Your task to perform on an android device: open a bookmark in the chrome app Image 0: 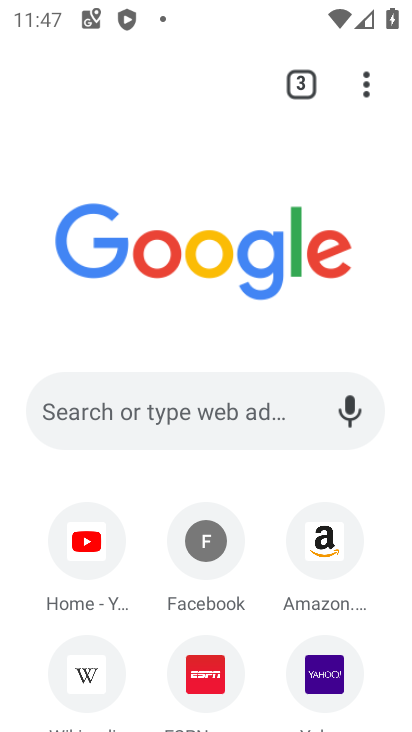
Step 0: press back button
Your task to perform on an android device: open a bookmark in the chrome app Image 1: 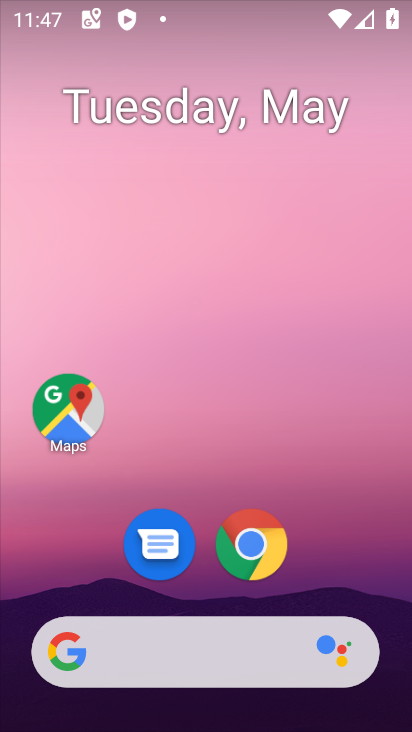
Step 1: drag from (276, 702) to (127, 55)
Your task to perform on an android device: open a bookmark in the chrome app Image 2: 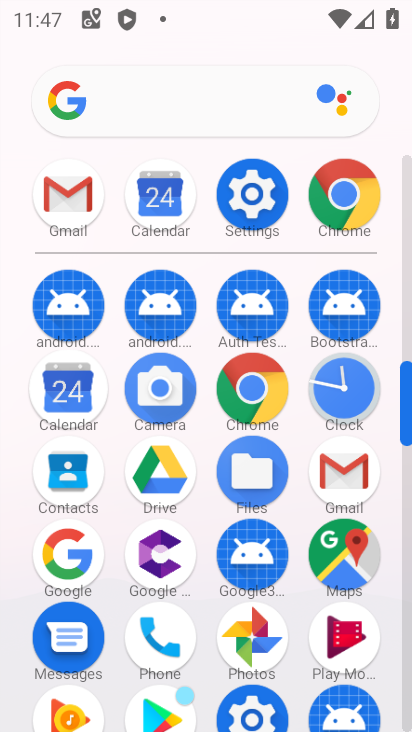
Step 2: click (341, 195)
Your task to perform on an android device: open a bookmark in the chrome app Image 3: 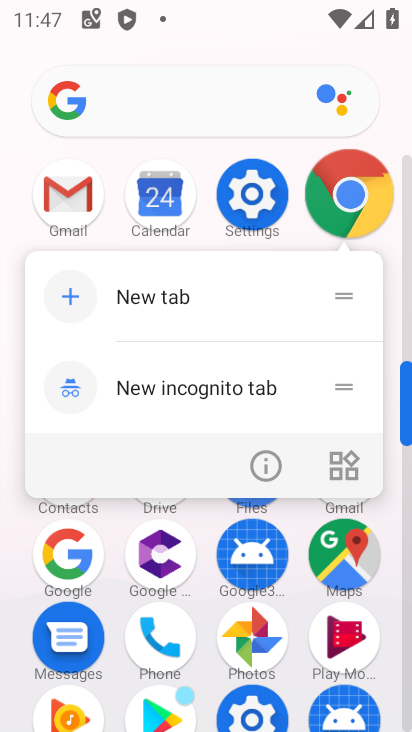
Step 3: click (347, 194)
Your task to perform on an android device: open a bookmark in the chrome app Image 4: 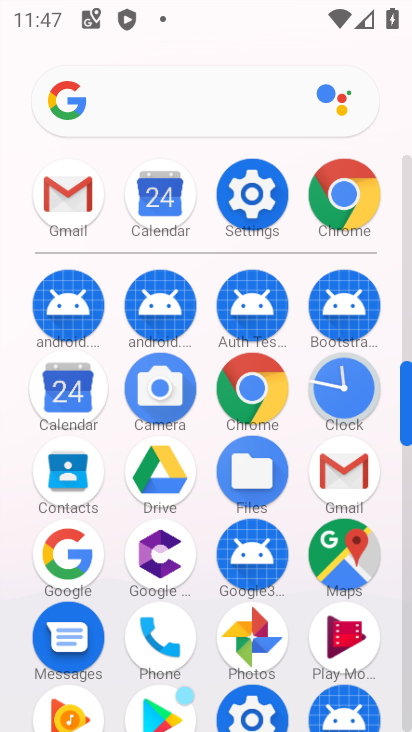
Step 4: click (345, 197)
Your task to perform on an android device: open a bookmark in the chrome app Image 5: 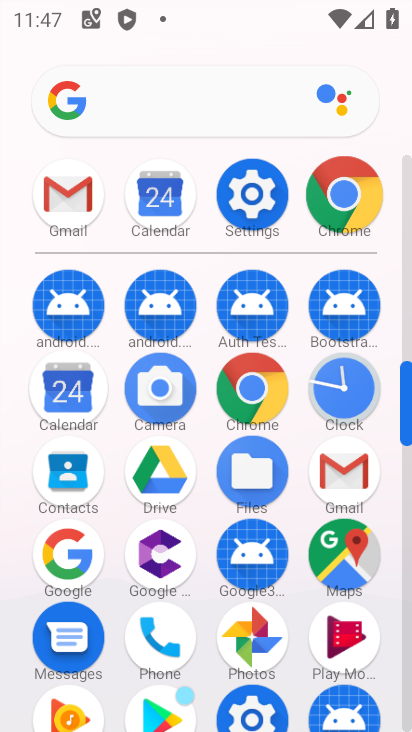
Step 5: click (344, 198)
Your task to perform on an android device: open a bookmark in the chrome app Image 6: 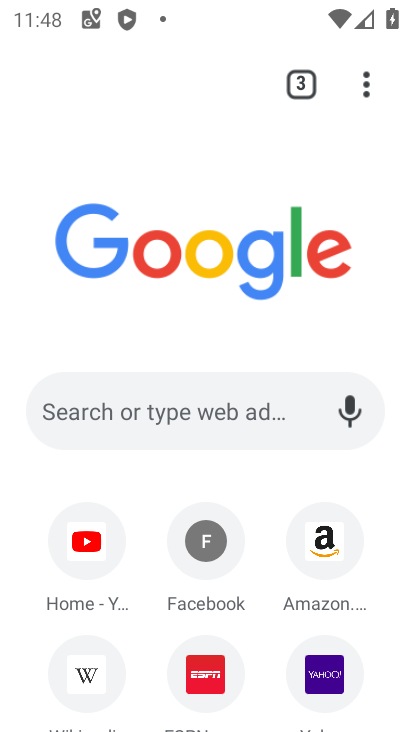
Step 6: click (365, 88)
Your task to perform on an android device: open a bookmark in the chrome app Image 7: 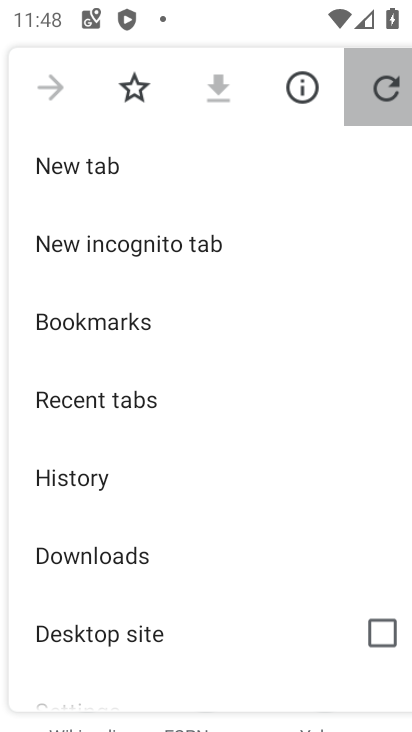
Step 7: drag from (339, 103) to (95, 319)
Your task to perform on an android device: open a bookmark in the chrome app Image 8: 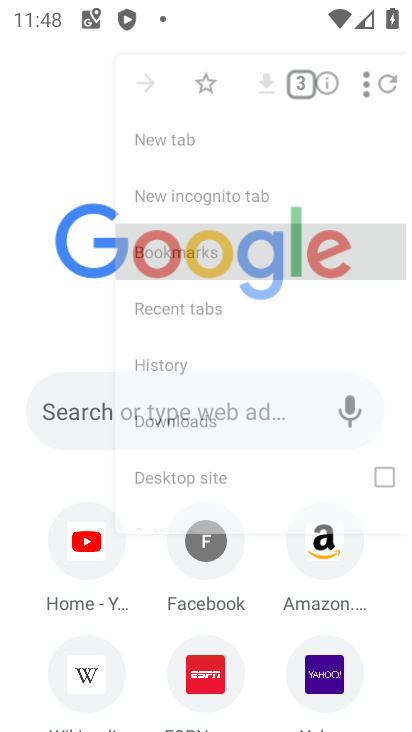
Step 8: click (105, 315)
Your task to perform on an android device: open a bookmark in the chrome app Image 9: 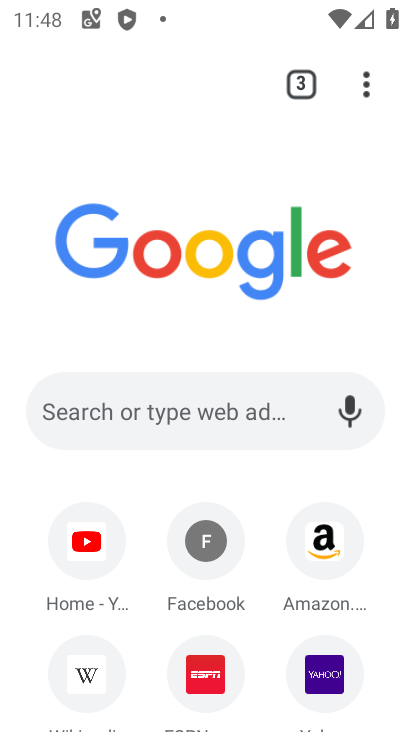
Step 9: click (105, 315)
Your task to perform on an android device: open a bookmark in the chrome app Image 10: 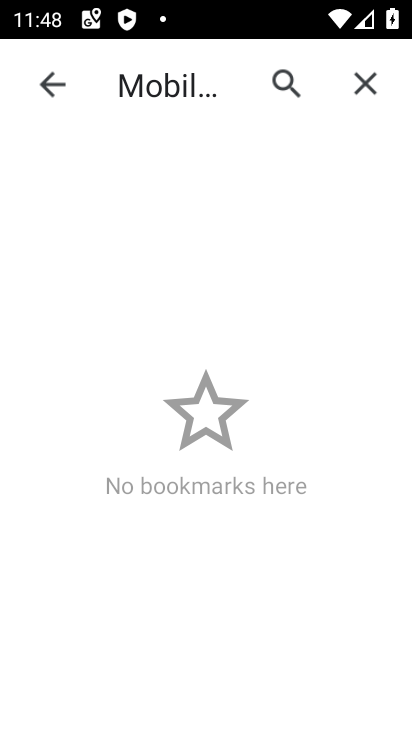
Step 10: task complete